Your task to perform on an android device: star an email in the gmail app Image 0: 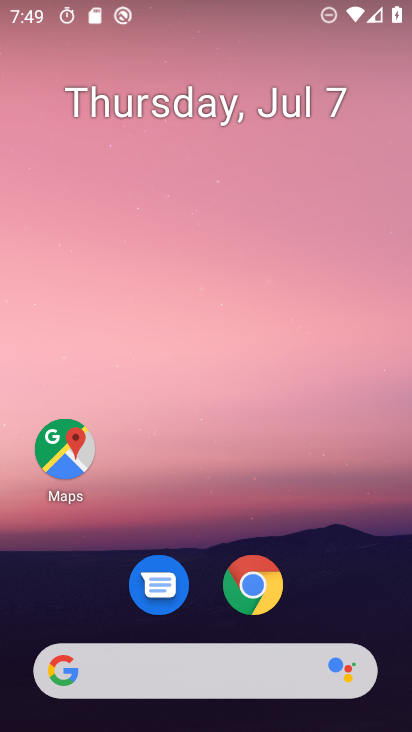
Step 0: drag from (190, 669) to (388, 149)
Your task to perform on an android device: star an email in the gmail app Image 1: 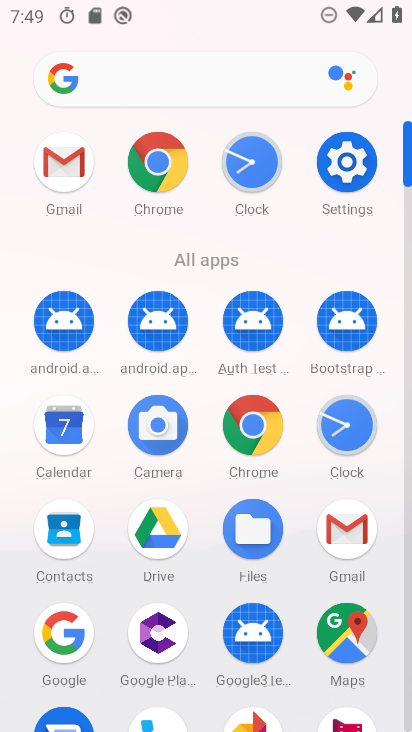
Step 1: click (67, 173)
Your task to perform on an android device: star an email in the gmail app Image 2: 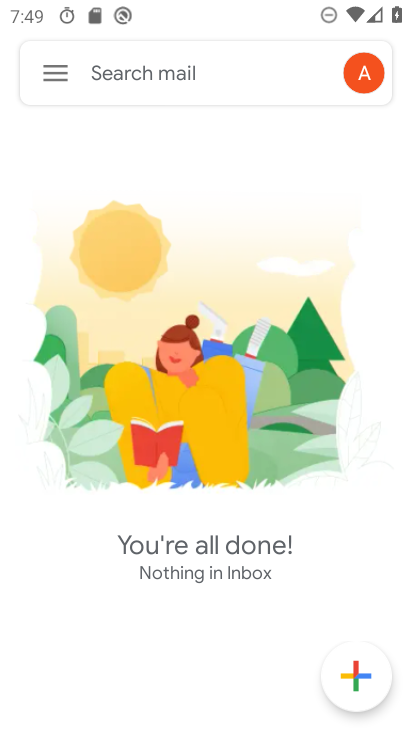
Step 2: task complete